Your task to perform on an android device: clear all cookies in the chrome app Image 0: 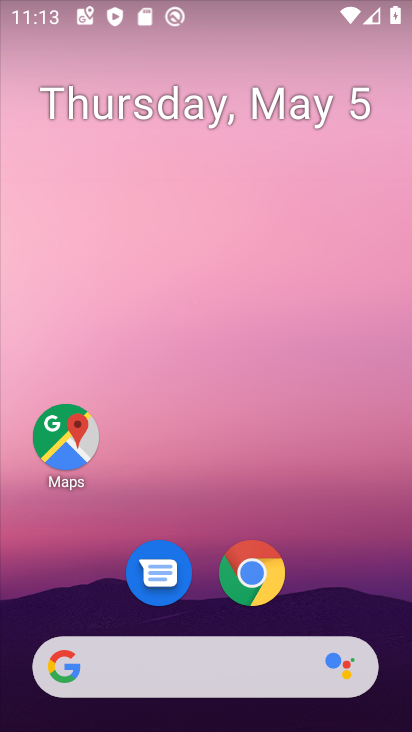
Step 0: drag from (336, 523) to (304, 232)
Your task to perform on an android device: clear all cookies in the chrome app Image 1: 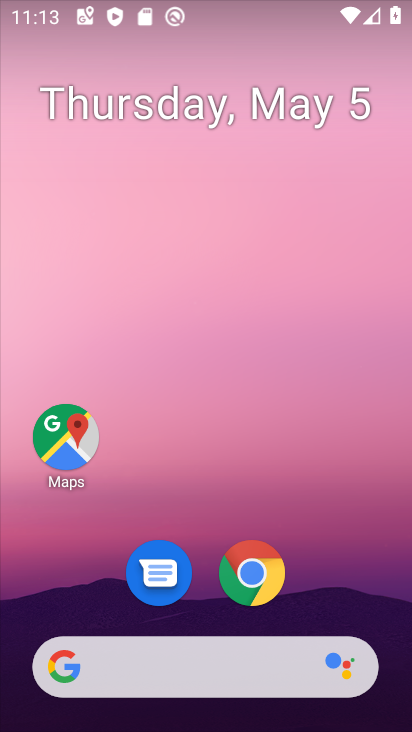
Step 1: drag from (301, 602) to (302, 182)
Your task to perform on an android device: clear all cookies in the chrome app Image 2: 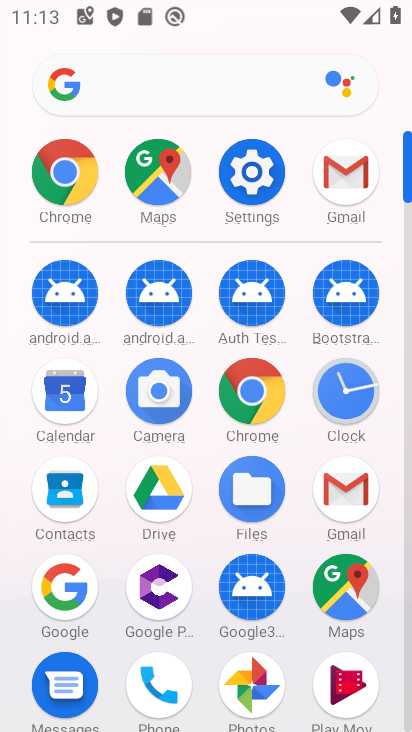
Step 2: click (247, 403)
Your task to perform on an android device: clear all cookies in the chrome app Image 3: 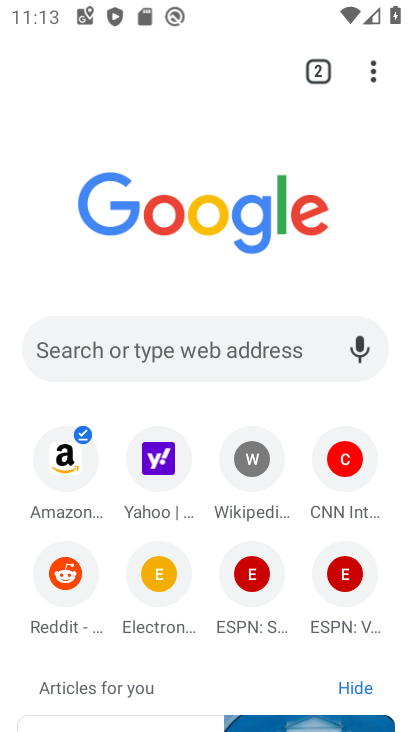
Step 3: click (359, 72)
Your task to perform on an android device: clear all cookies in the chrome app Image 4: 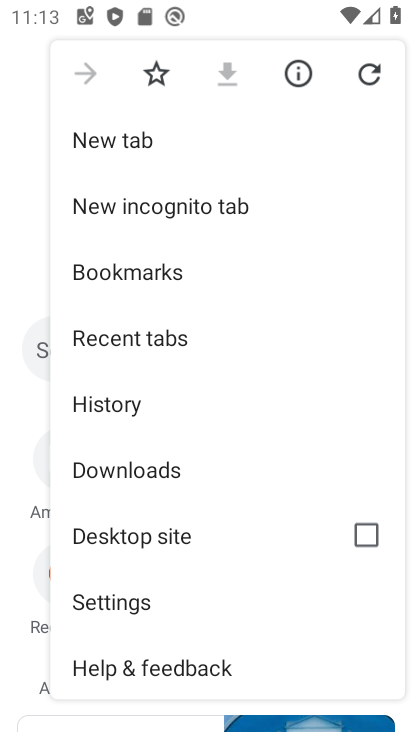
Step 4: click (162, 599)
Your task to perform on an android device: clear all cookies in the chrome app Image 5: 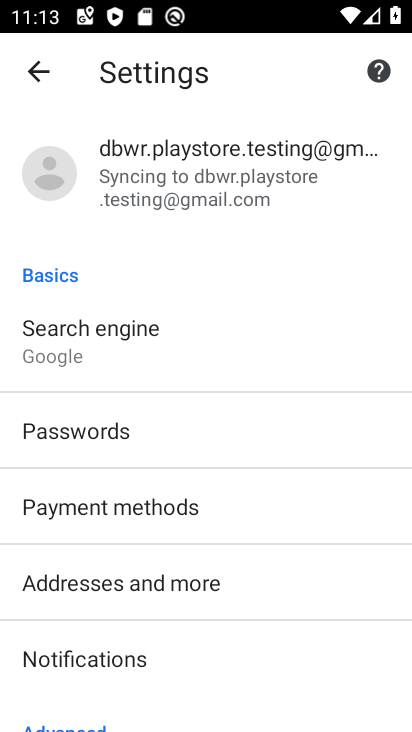
Step 5: drag from (249, 653) to (298, 280)
Your task to perform on an android device: clear all cookies in the chrome app Image 6: 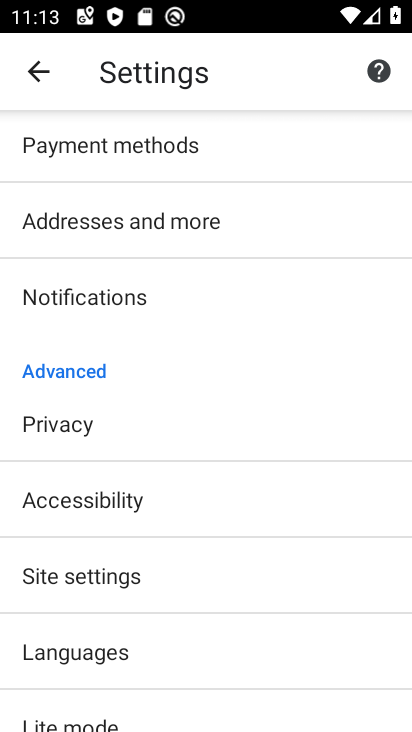
Step 6: click (169, 578)
Your task to perform on an android device: clear all cookies in the chrome app Image 7: 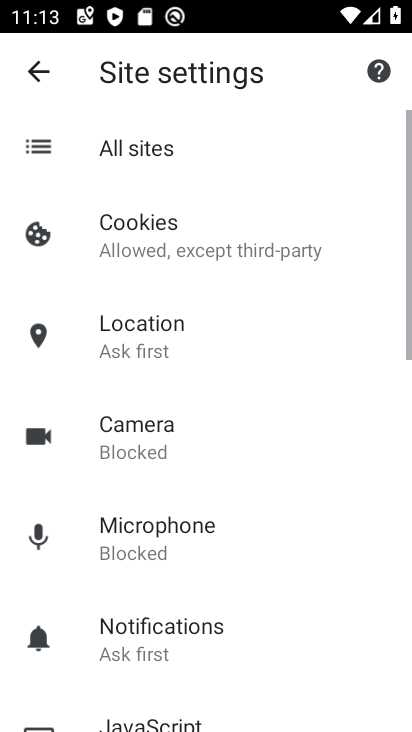
Step 7: click (238, 229)
Your task to perform on an android device: clear all cookies in the chrome app Image 8: 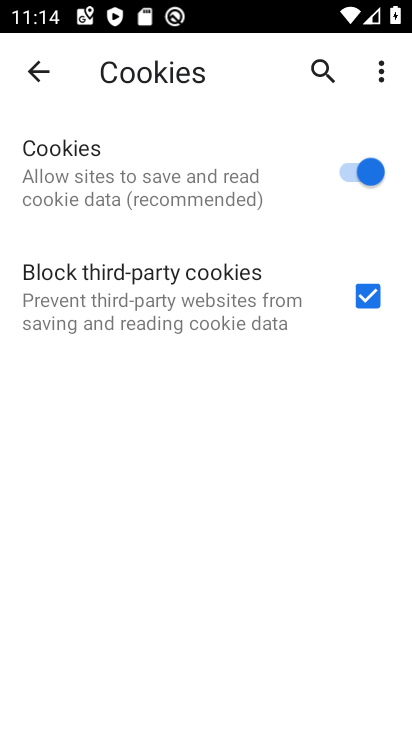
Step 8: task complete